Your task to perform on an android device: Search for sushi restaurants on Maps Image 0: 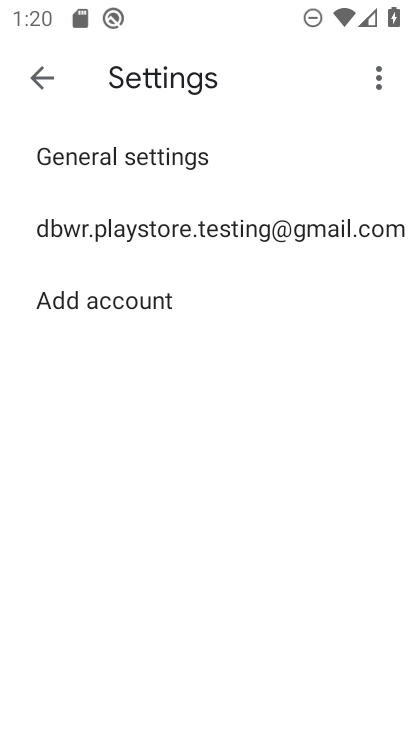
Step 0: press back button
Your task to perform on an android device: Search for sushi restaurants on Maps Image 1: 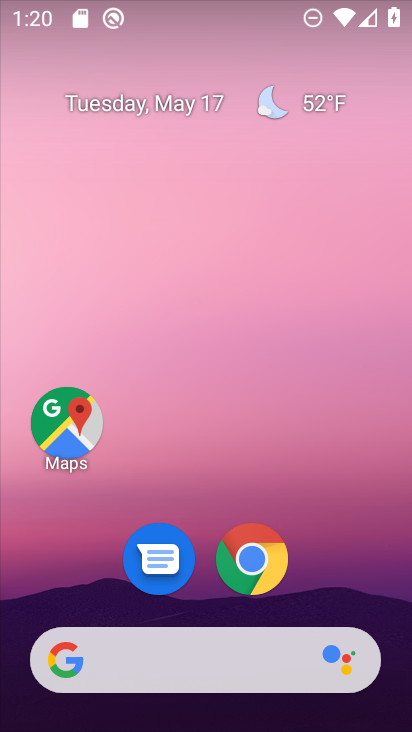
Step 1: click (65, 427)
Your task to perform on an android device: Search for sushi restaurants on Maps Image 2: 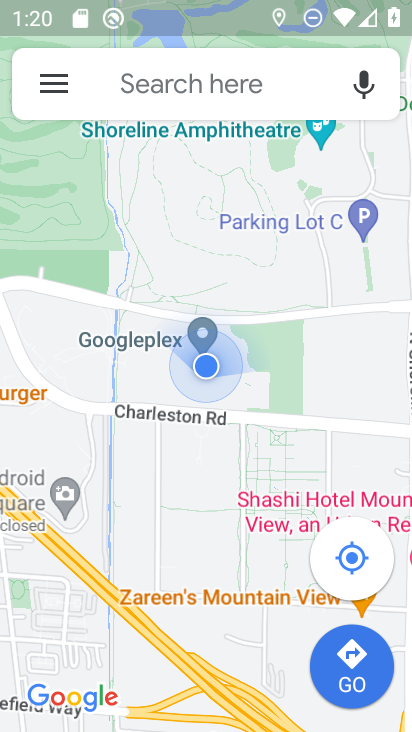
Step 2: click (156, 88)
Your task to perform on an android device: Search for sushi restaurants on Maps Image 3: 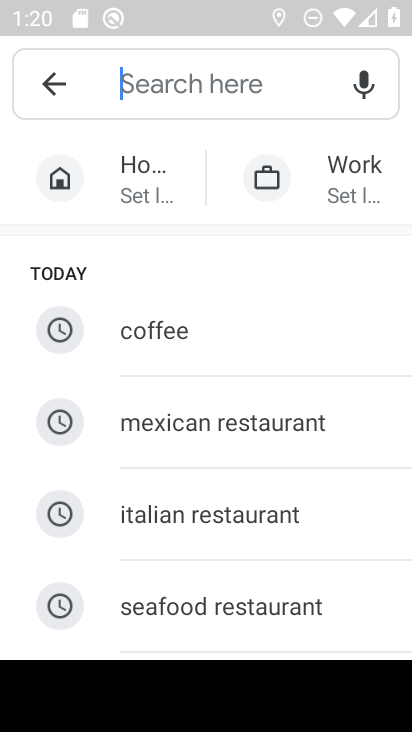
Step 3: type "sushi restaurants"
Your task to perform on an android device: Search for sushi restaurants on Maps Image 4: 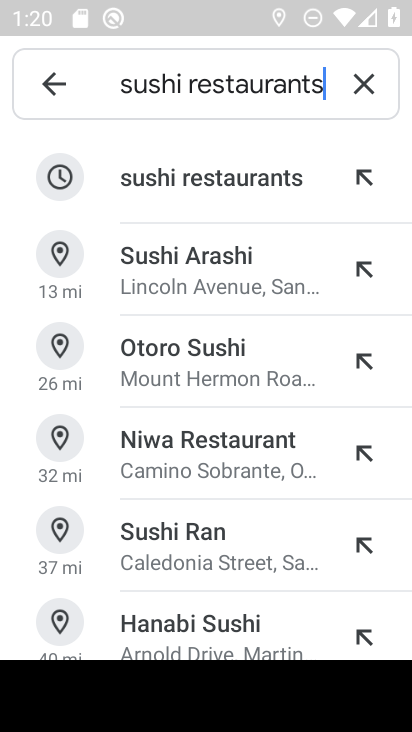
Step 4: click (194, 178)
Your task to perform on an android device: Search for sushi restaurants on Maps Image 5: 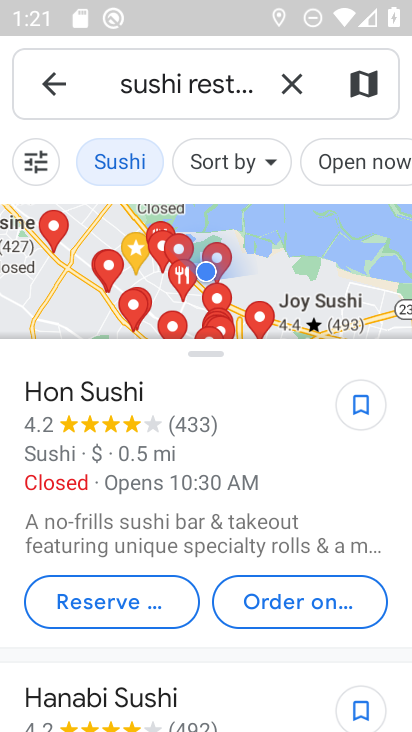
Step 5: task complete